Your task to perform on an android device: Play the new Taylor Swift video on YouTube Image 0: 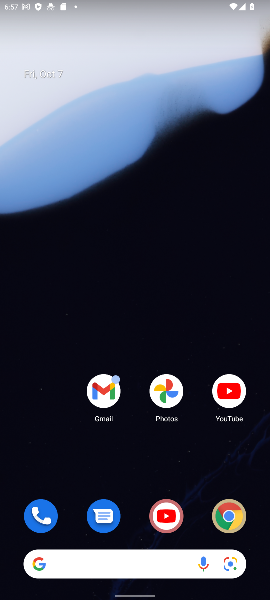
Step 0: drag from (76, 541) to (143, 91)
Your task to perform on an android device: Play the new Taylor Swift video on YouTube Image 1: 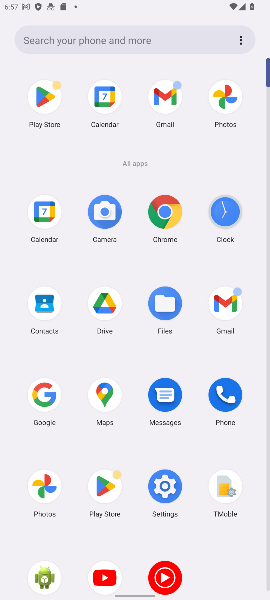
Step 1: click (104, 560)
Your task to perform on an android device: Play the new Taylor Swift video on YouTube Image 2: 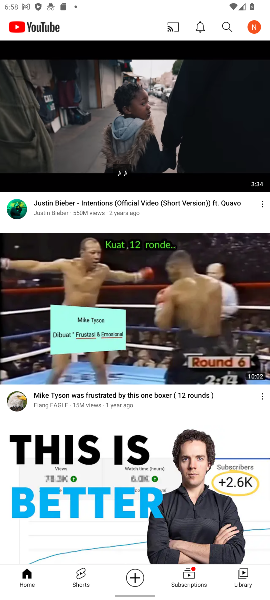
Step 2: task complete